Your task to perform on an android device: read, delete, or share a saved page in the chrome app Image 0: 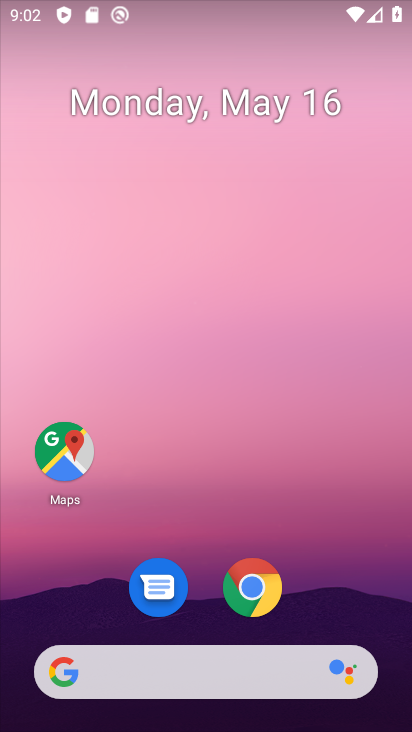
Step 0: click (256, 599)
Your task to perform on an android device: read, delete, or share a saved page in the chrome app Image 1: 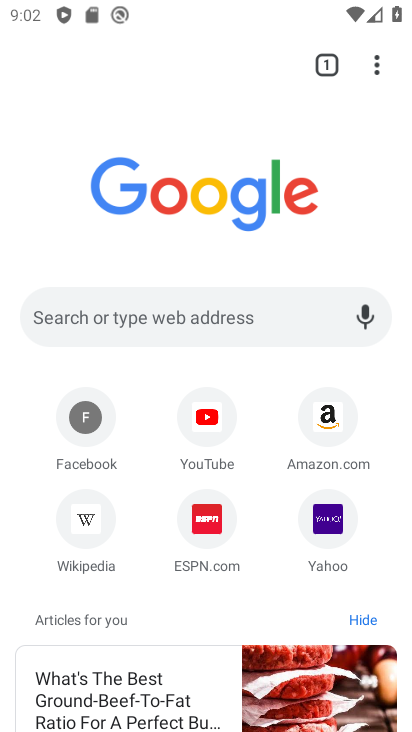
Step 1: drag from (375, 75) to (263, 422)
Your task to perform on an android device: read, delete, or share a saved page in the chrome app Image 2: 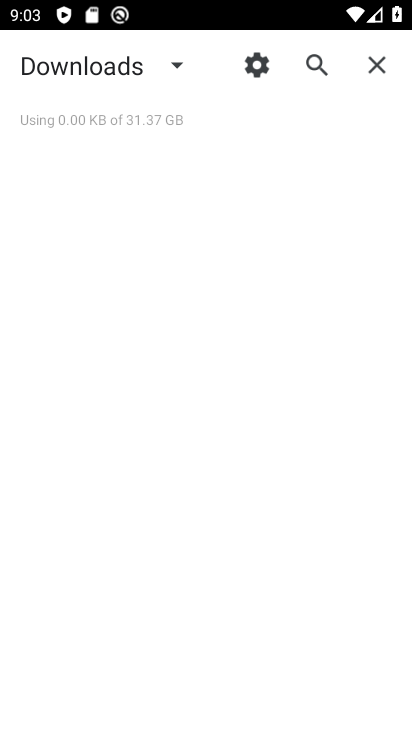
Step 2: click (119, 77)
Your task to perform on an android device: read, delete, or share a saved page in the chrome app Image 3: 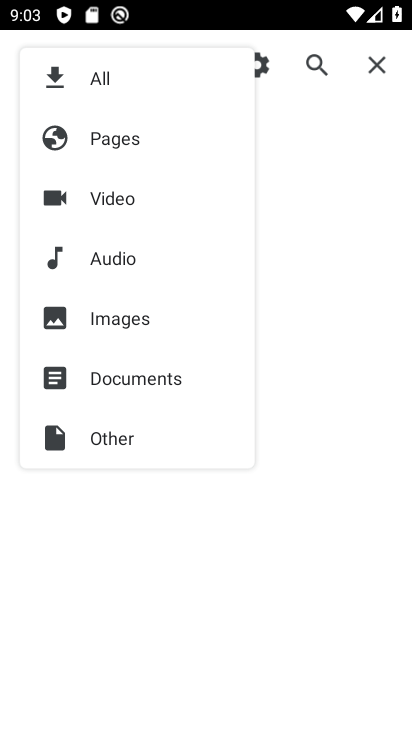
Step 3: click (147, 152)
Your task to perform on an android device: read, delete, or share a saved page in the chrome app Image 4: 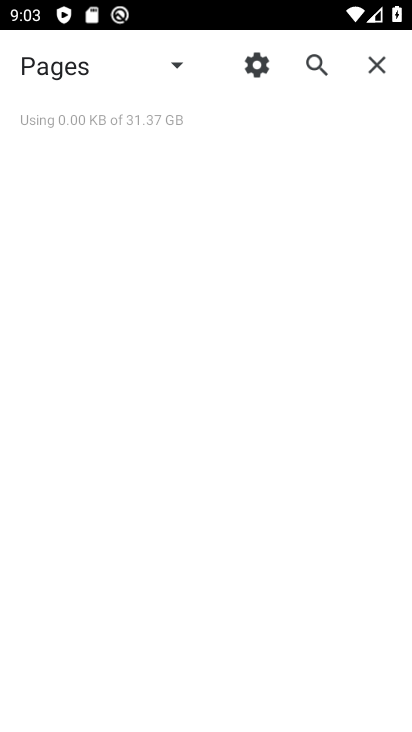
Step 4: task complete